Your task to perform on an android device: Go to wifi settings Image 0: 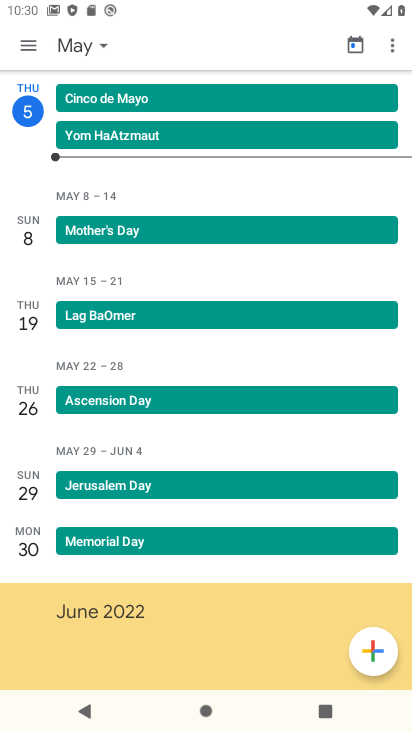
Step 0: press home button
Your task to perform on an android device: Go to wifi settings Image 1: 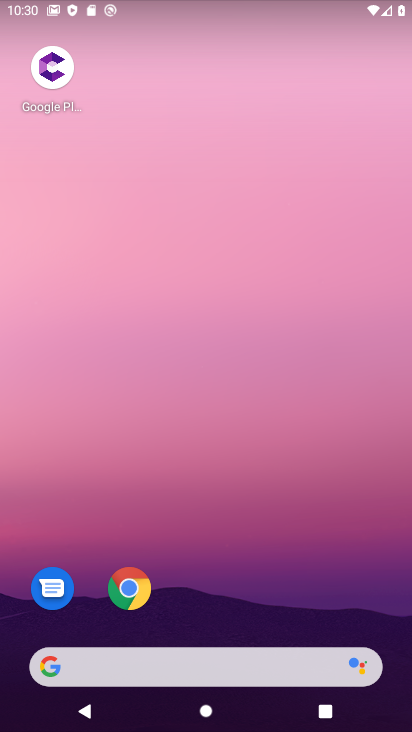
Step 1: drag from (219, 593) to (273, 168)
Your task to perform on an android device: Go to wifi settings Image 2: 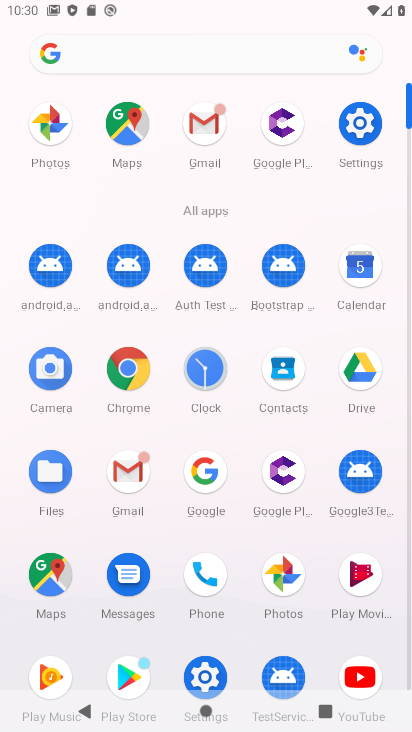
Step 2: click (356, 133)
Your task to perform on an android device: Go to wifi settings Image 3: 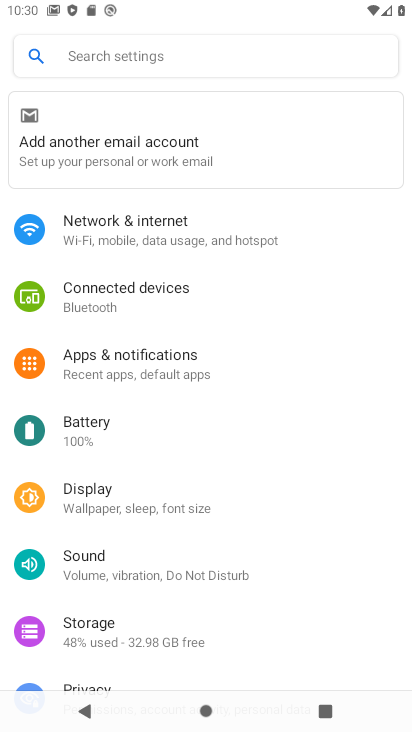
Step 3: click (192, 236)
Your task to perform on an android device: Go to wifi settings Image 4: 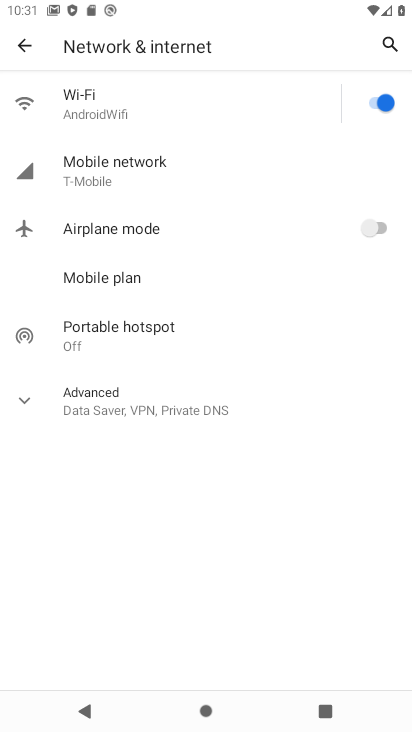
Step 4: click (117, 94)
Your task to perform on an android device: Go to wifi settings Image 5: 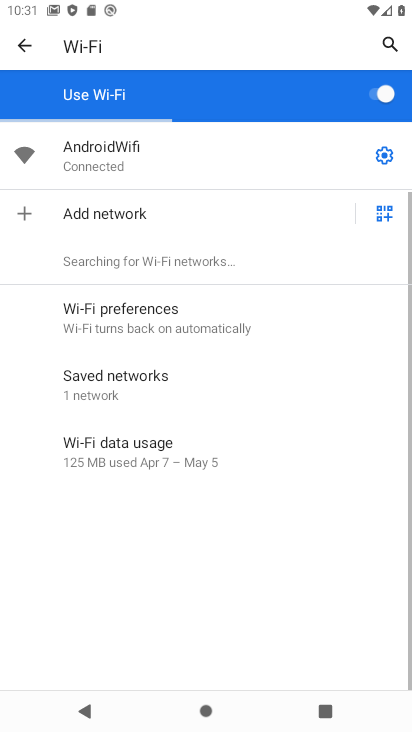
Step 5: task complete